Your task to perform on an android device: Go to settings Image 0: 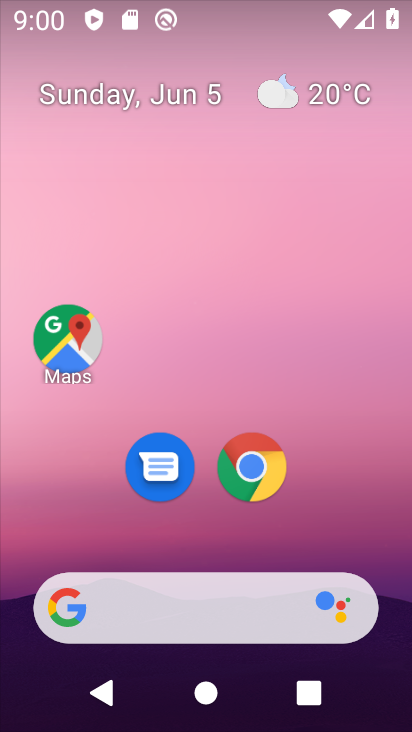
Step 0: drag from (345, 528) to (354, 31)
Your task to perform on an android device: Go to settings Image 1: 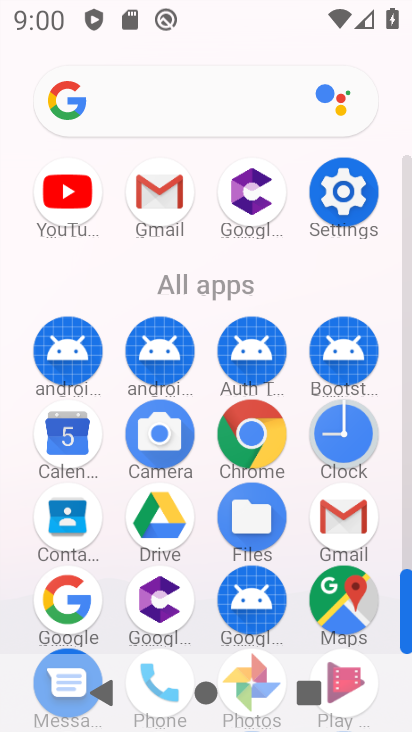
Step 1: click (347, 189)
Your task to perform on an android device: Go to settings Image 2: 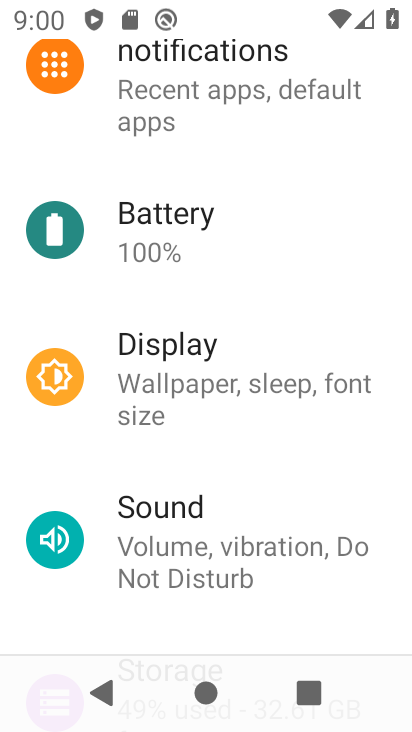
Step 2: task complete